Your task to perform on an android device: Go to privacy settings Image 0: 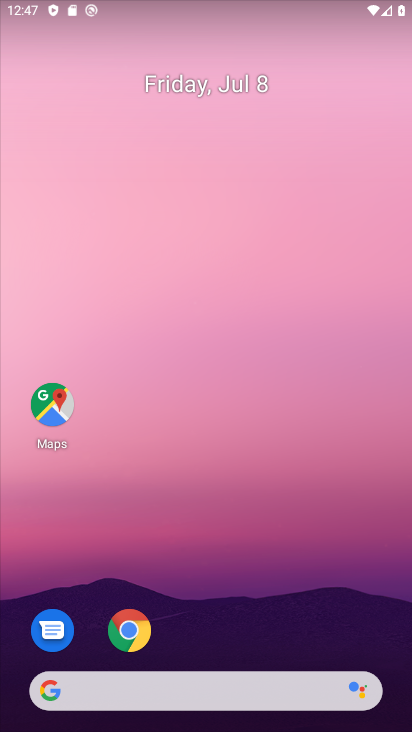
Step 0: drag from (330, 708) to (405, 104)
Your task to perform on an android device: Go to privacy settings Image 1: 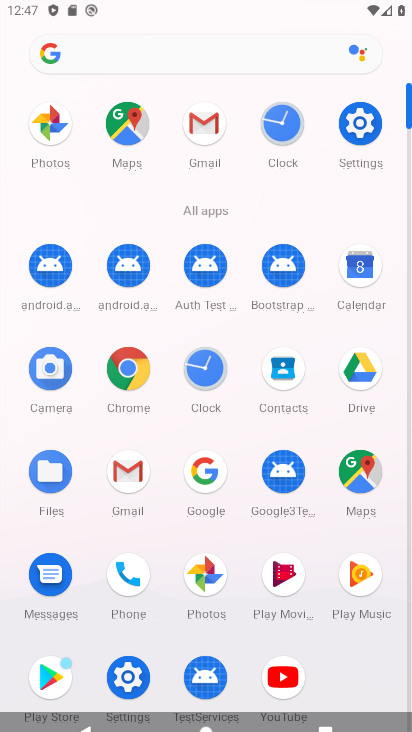
Step 1: click (363, 106)
Your task to perform on an android device: Go to privacy settings Image 2: 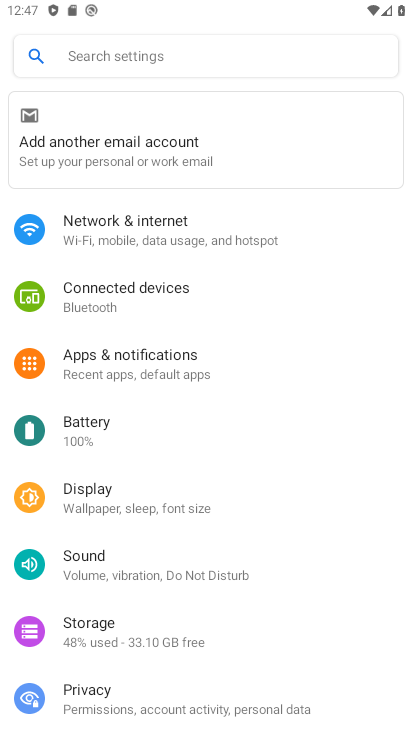
Step 2: click (130, 684)
Your task to perform on an android device: Go to privacy settings Image 3: 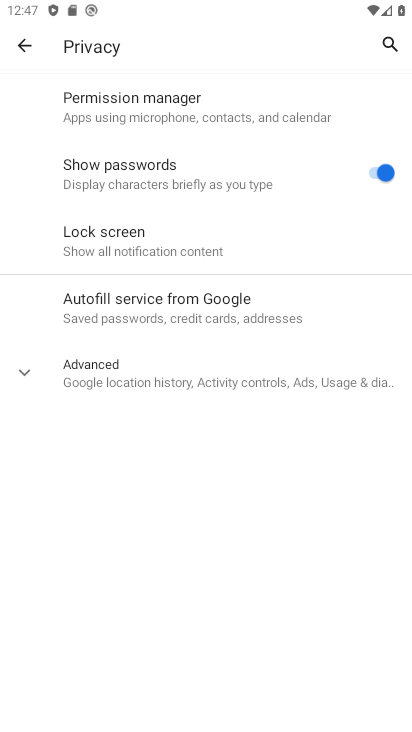
Step 3: task complete